Your task to perform on an android device: Add logitech g903 to the cart on walmart.com Image 0: 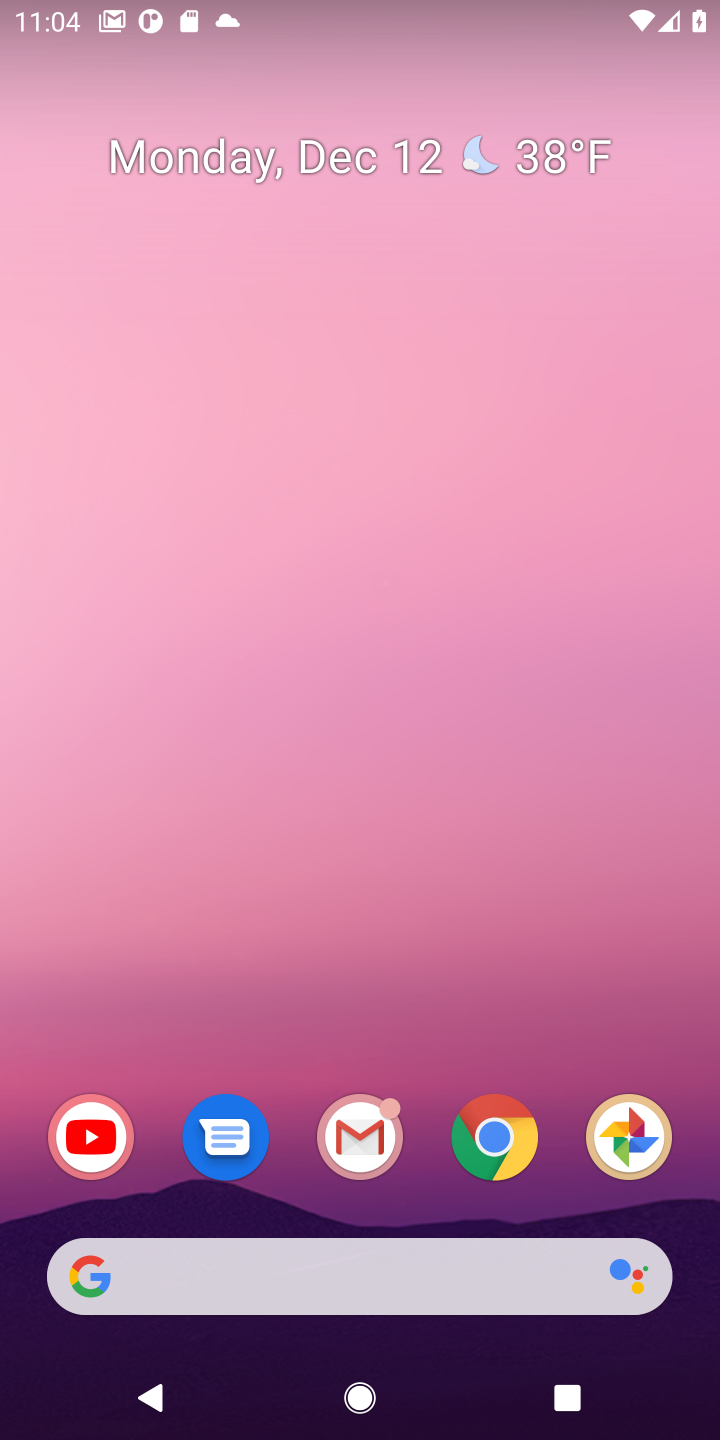
Step 0: click (337, 1270)
Your task to perform on an android device: Add logitech g903 to the cart on walmart.com Image 1: 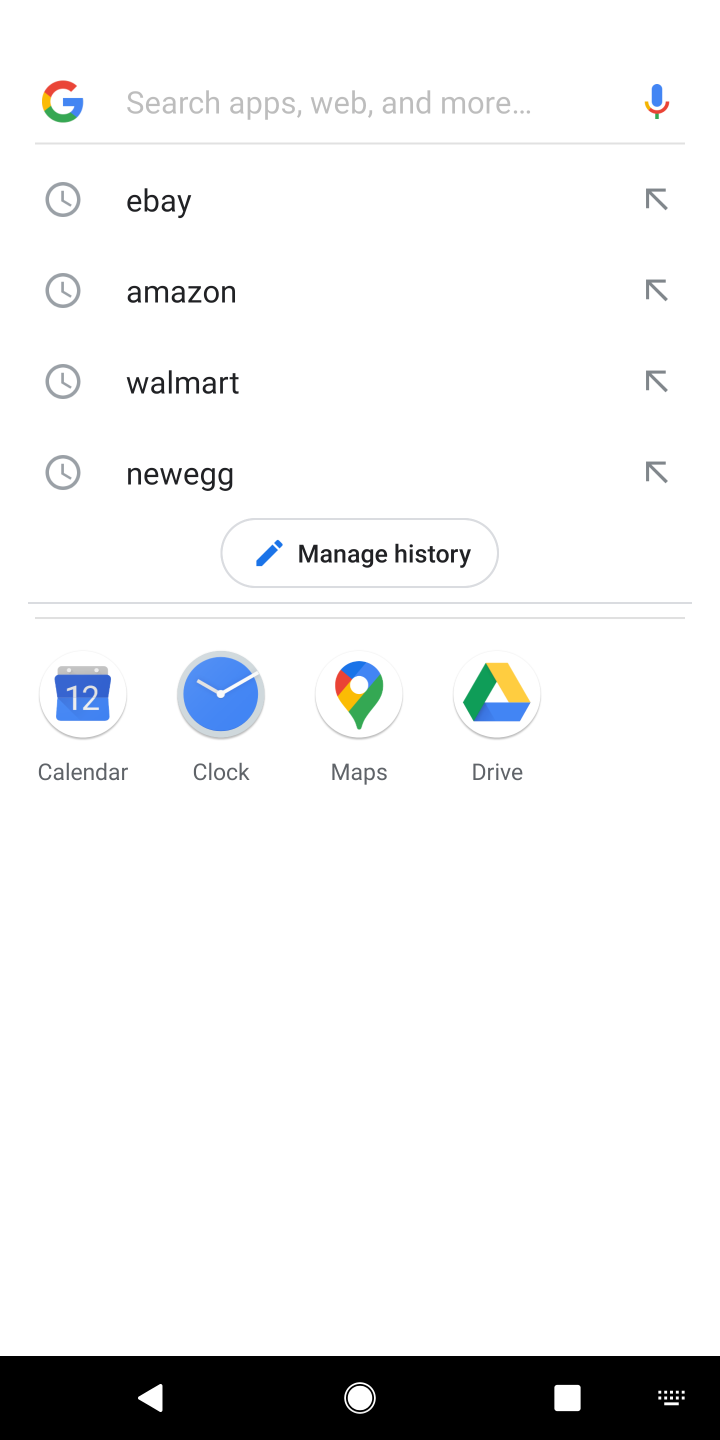
Step 1: click (161, 396)
Your task to perform on an android device: Add logitech g903 to the cart on walmart.com Image 2: 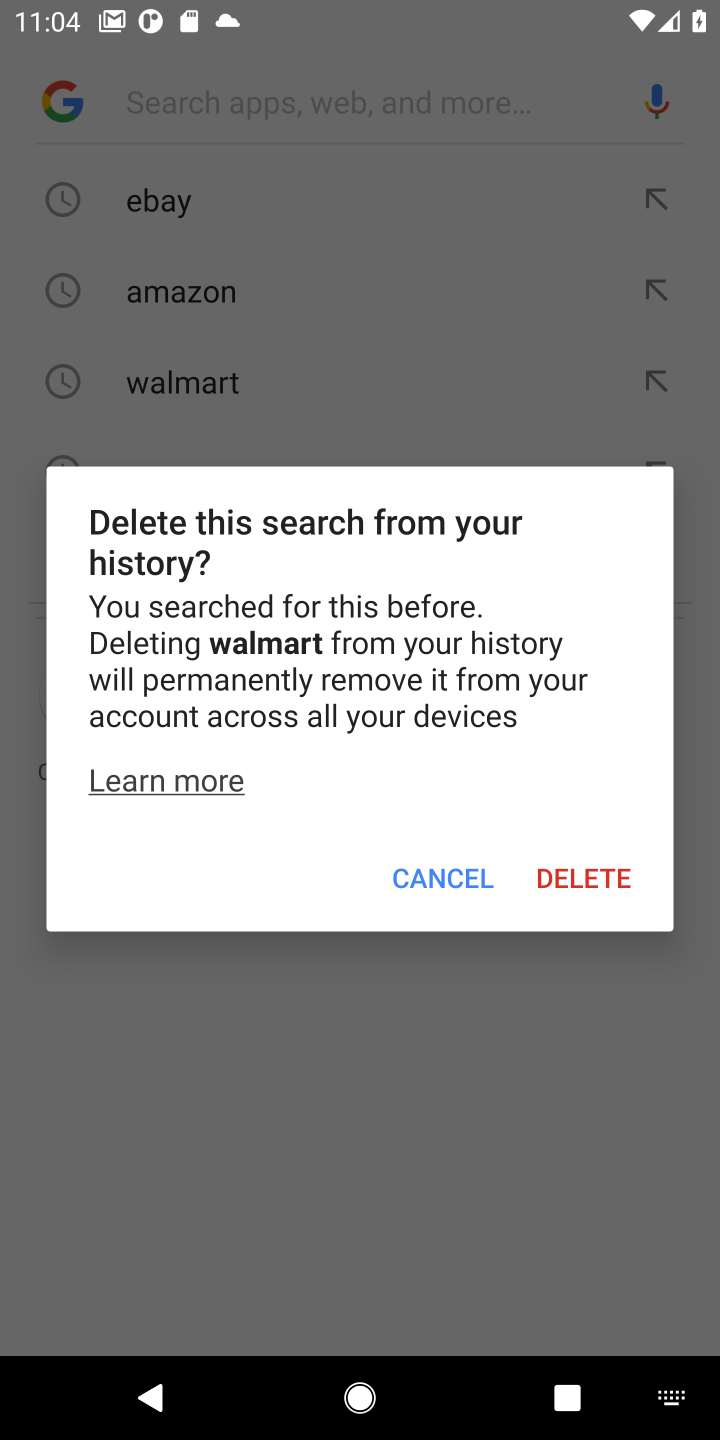
Step 2: click (415, 882)
Your task to perform on an android device: Add logitech g903 to the cart on walmart.com Image 3: 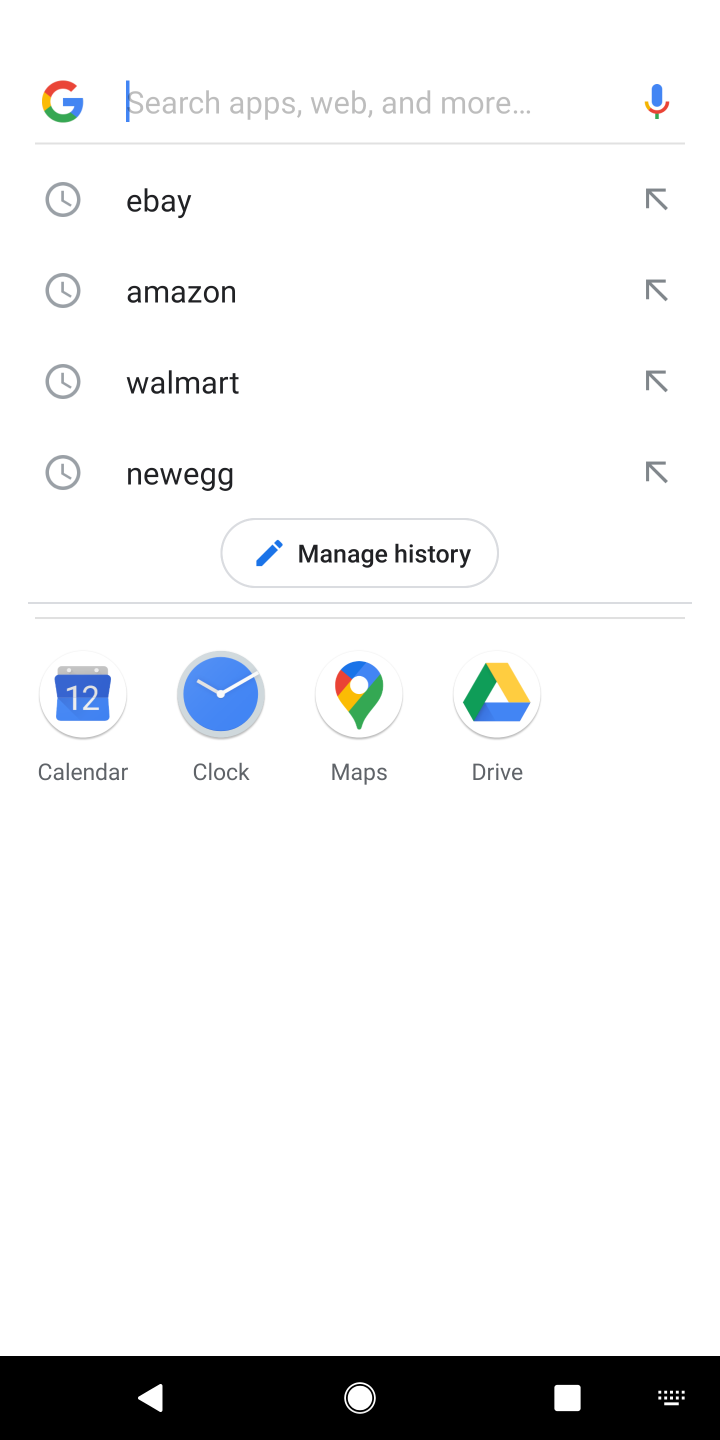
Step 3: click (225, 353)
Your task to perform on an android device: Add logitech g903 to the cart on walmart.com Image 4: 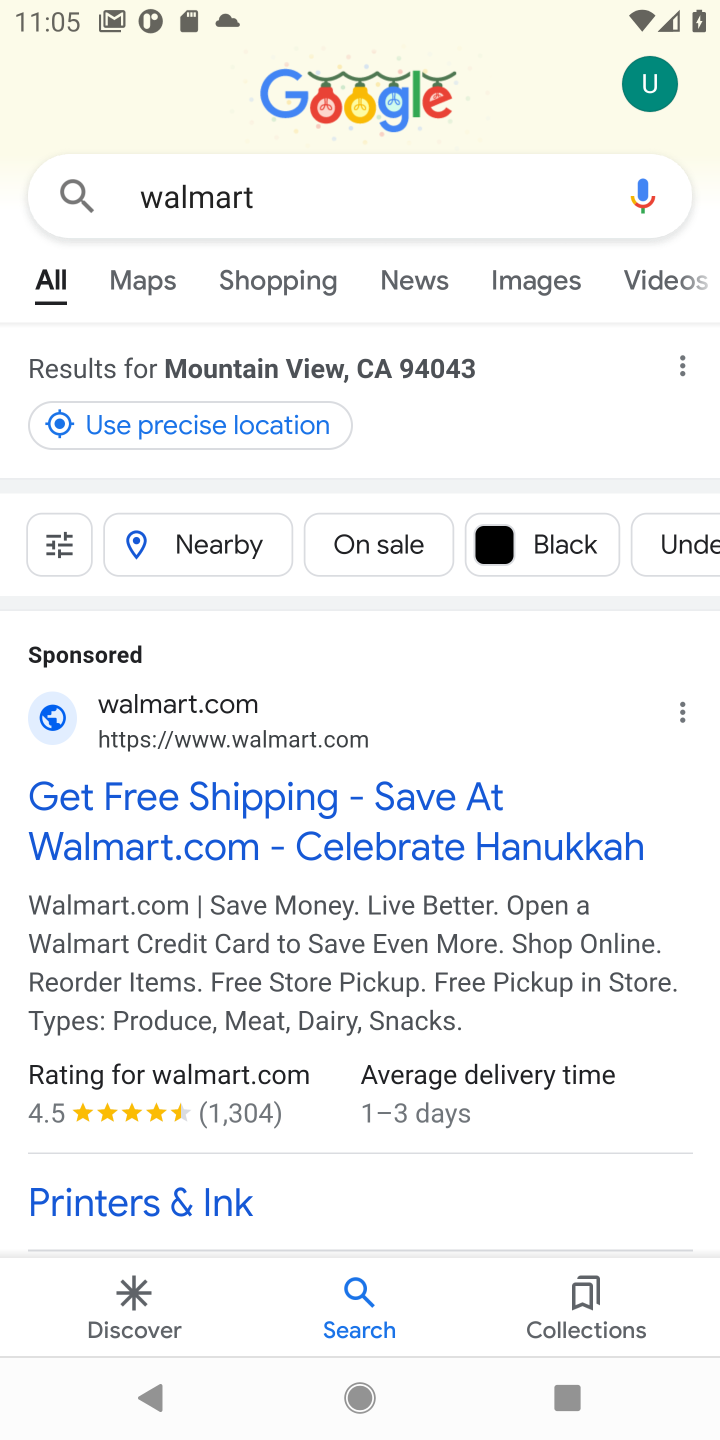
Step 4: click (128, 779)
Your task to perform on an android device: Add logitech g903 to the cart on walmart.com Image 5: 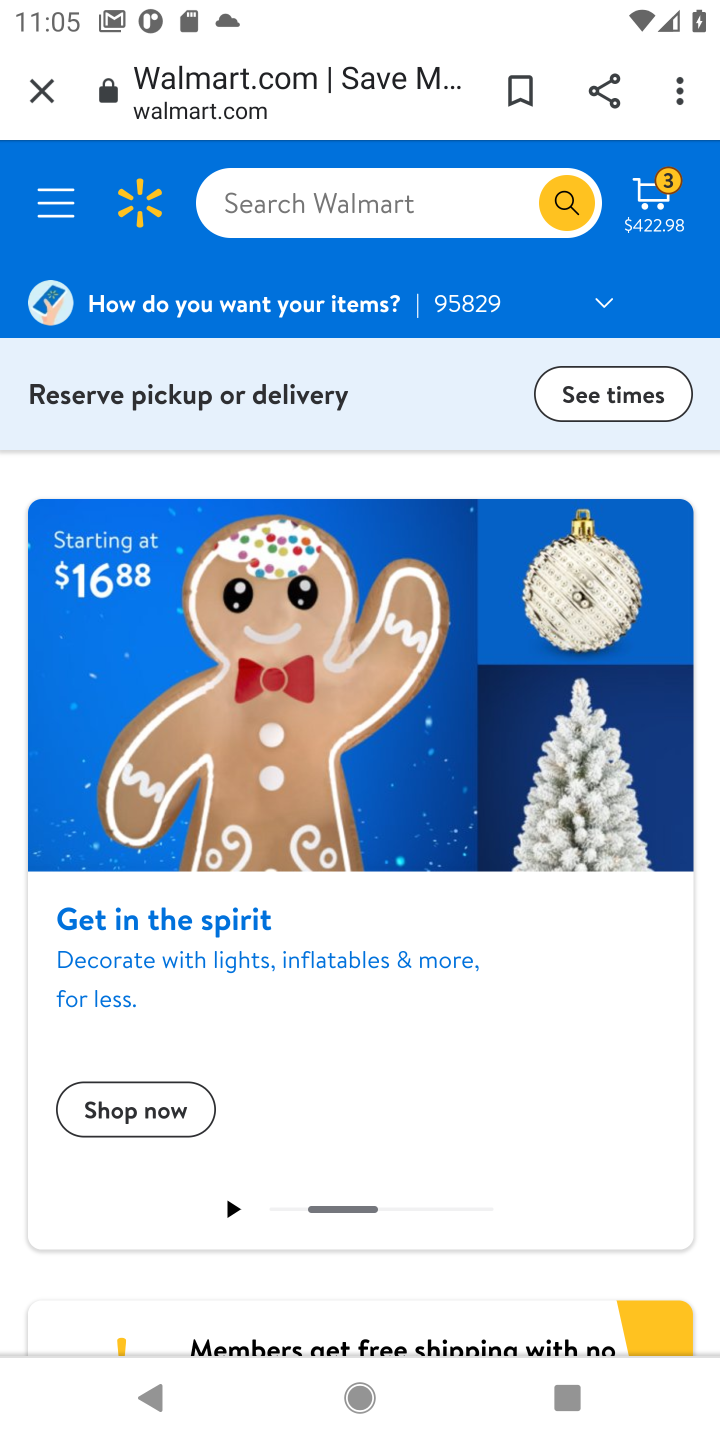
Step 5: click (379, 211)
Your task to perform on an android device: Add logitech g903 to the cart on walmart.com Image 6: 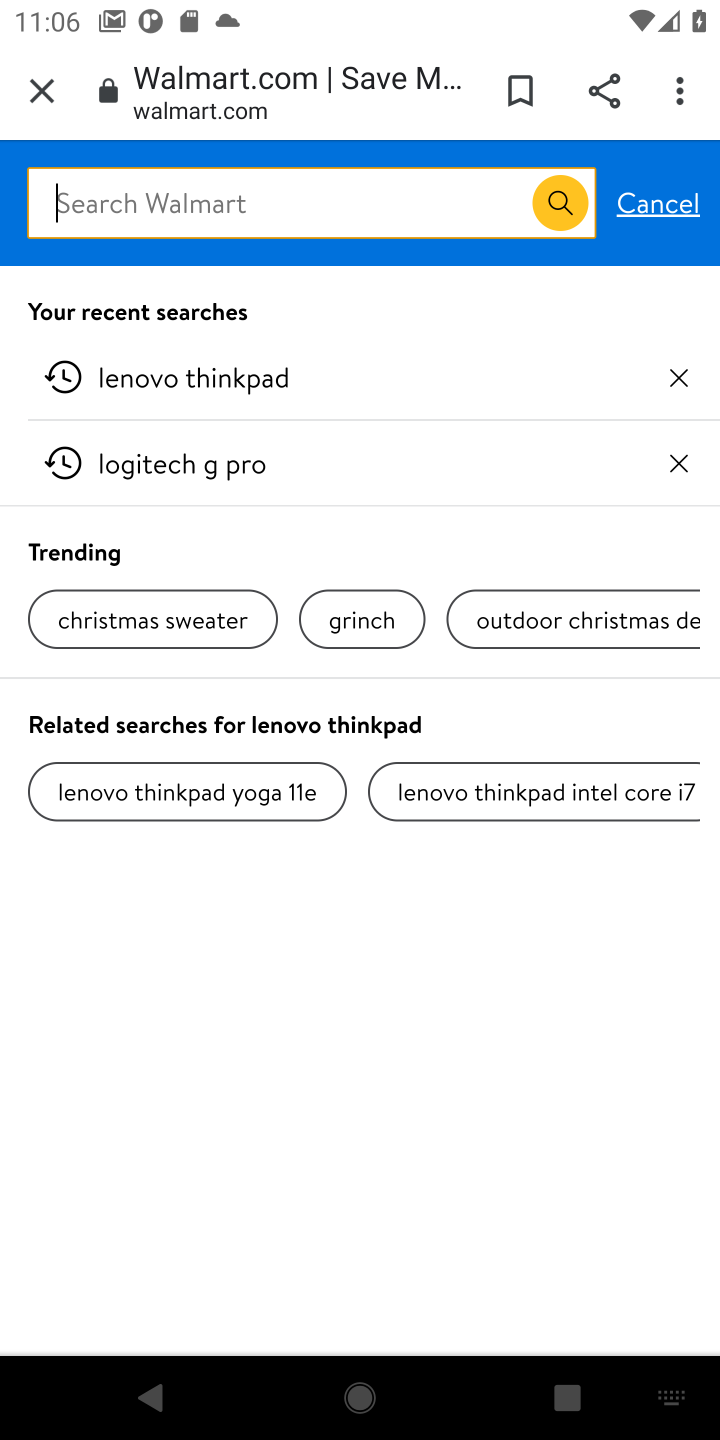
Step 6: type "logitech g903"
Your task to perform on an android device: Add logitech g903 to the cart on walmart.com Image 7: 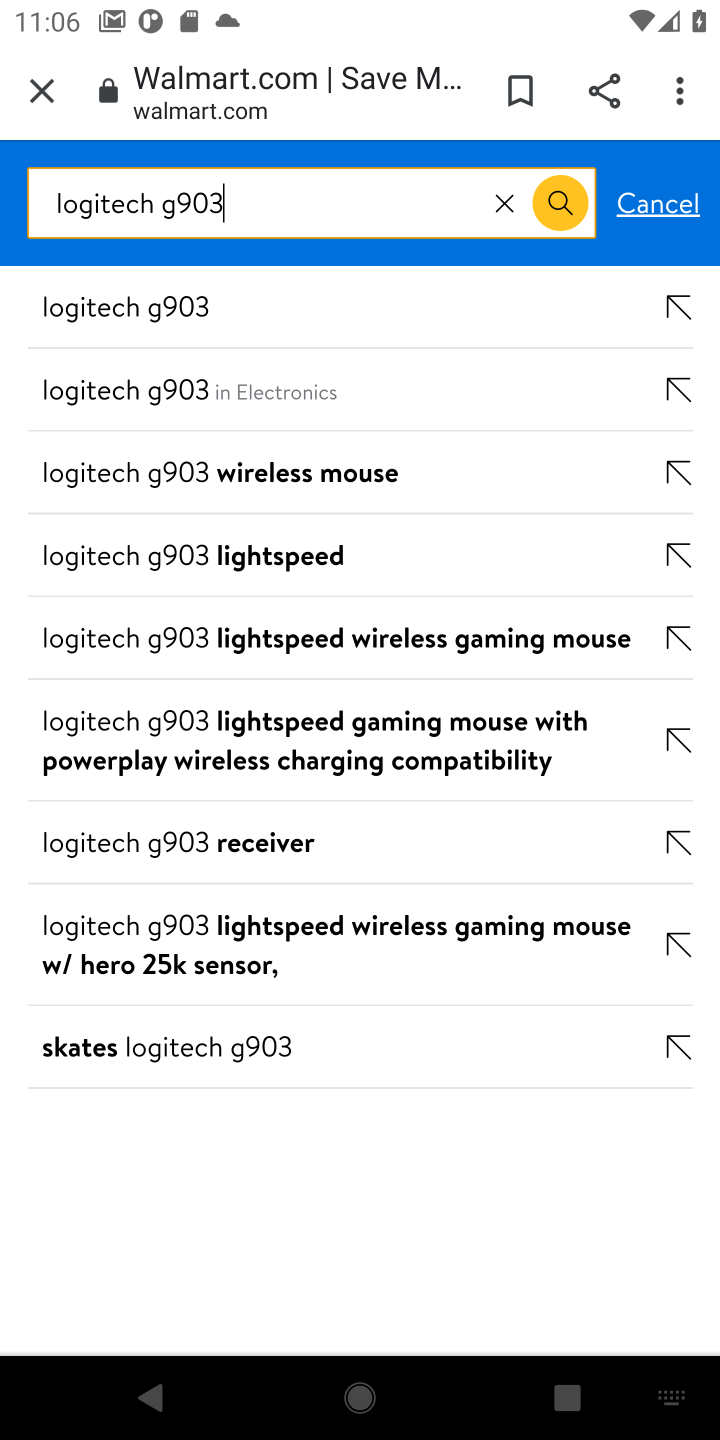
Step 7: click (560, 211)
Your task to perform on an android device: Add logitech g903 to the cart on walmart.com Image 8: 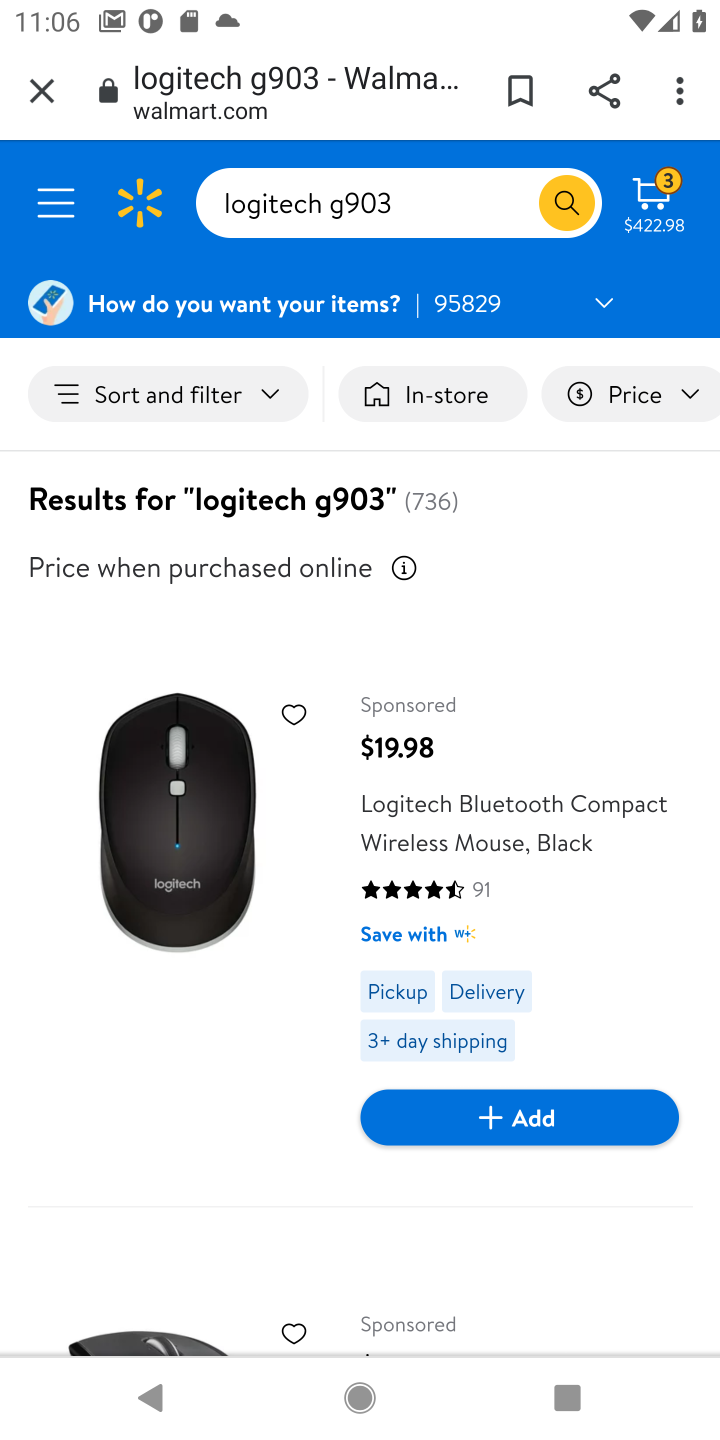
Step 8: click (507, 1121)
Your task to perform on an android device: Add logitech g903 to the cart on walmart.com Image 9: 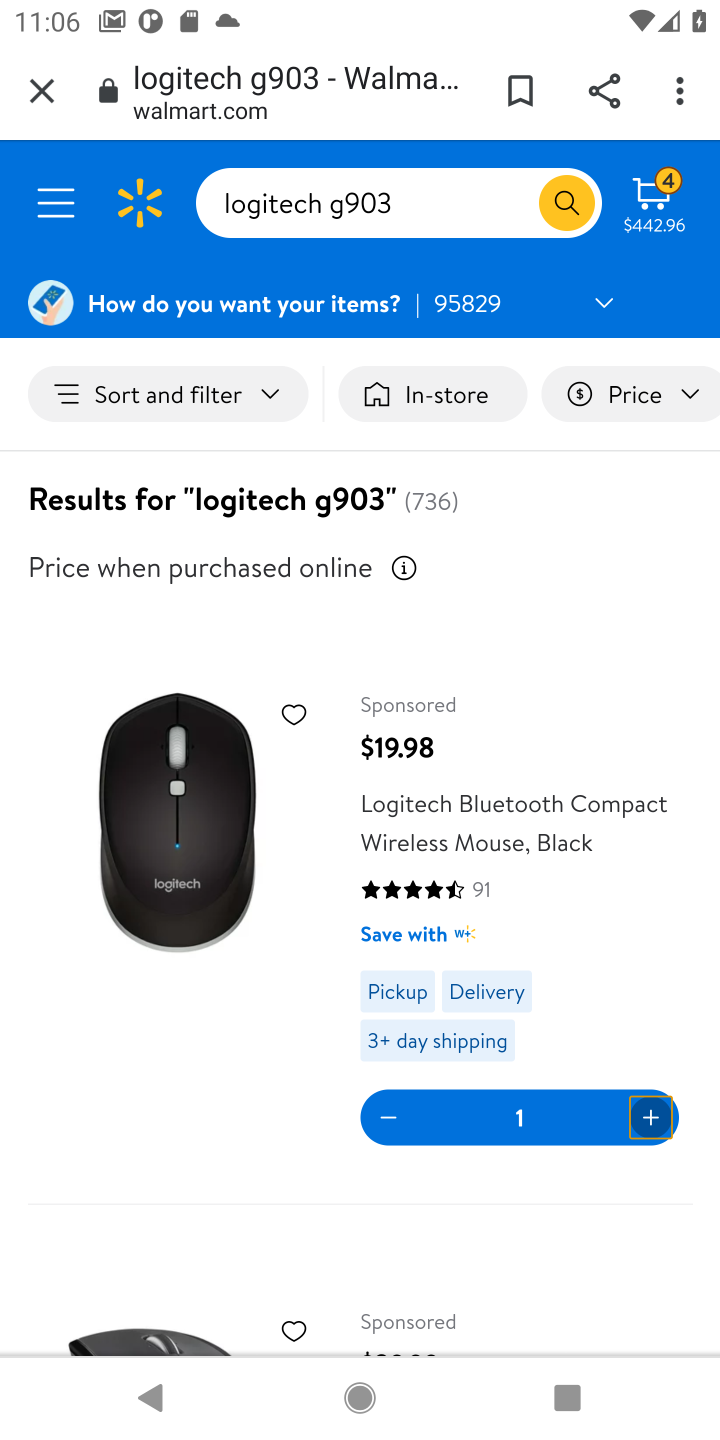
Step 9: task complete